Your task to perform on an android device: turn off location history Image 0: 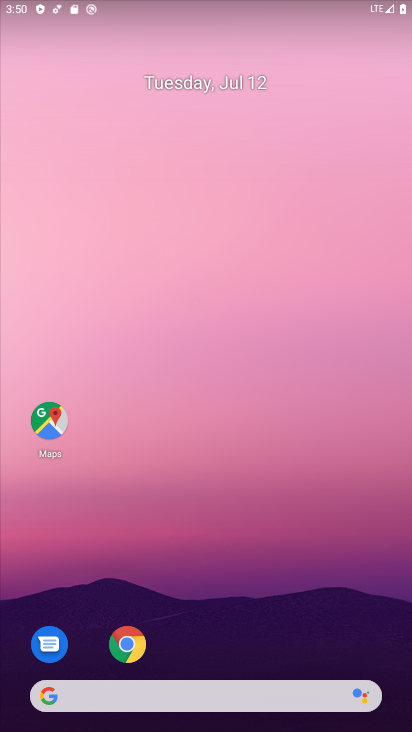
Step 0: drag from (266, 598) to (243, 2)
Your task to perform on an android device: turn off location history Image 1: 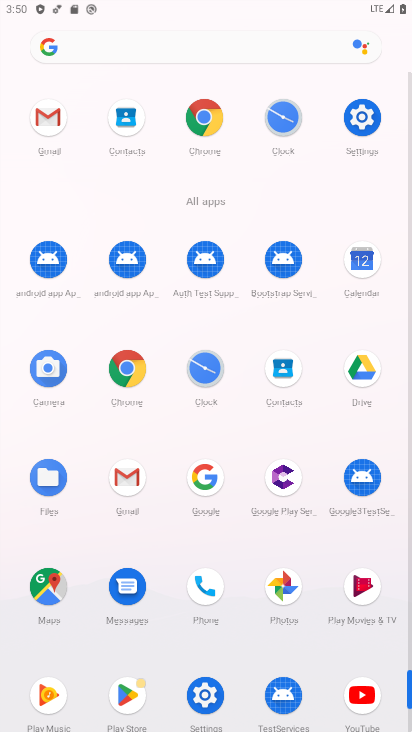
Step 1: click (214, 683)
Your task to perform on an android device: turn off location history Image 2: 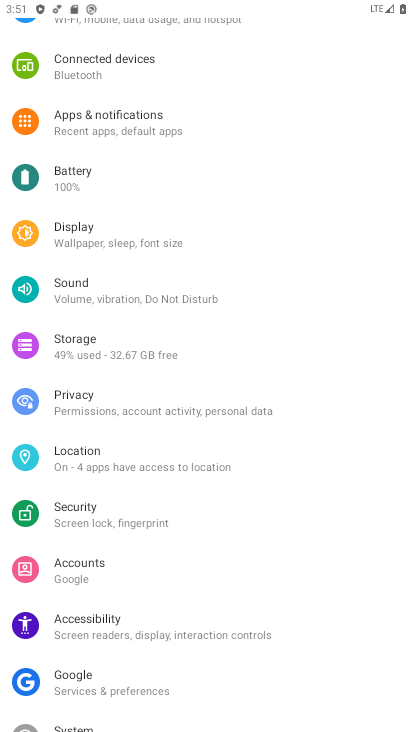
Step 2: drag from (192, 634) to (144, 249)
Your task to perform on an android device: turn off location history Image 3: 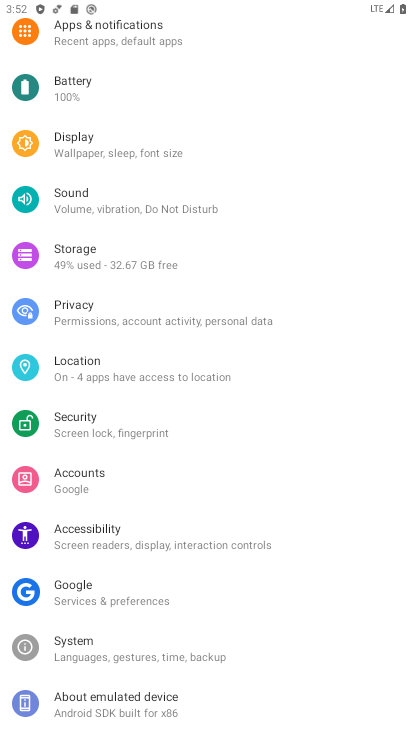
Step 3: drag from (144, 572) to (111, 225)
Your task to perform on an android device: turn off location history Image 4: 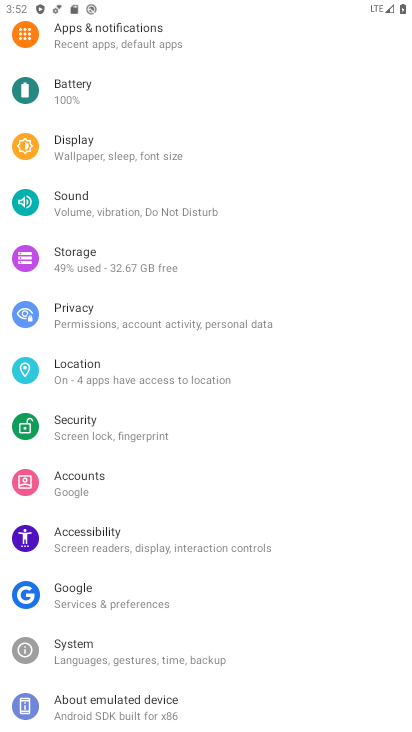
Step 4: drag from (196, 563) to (164, 238)
Your task to perform on an android device: turn off location history Image 5: 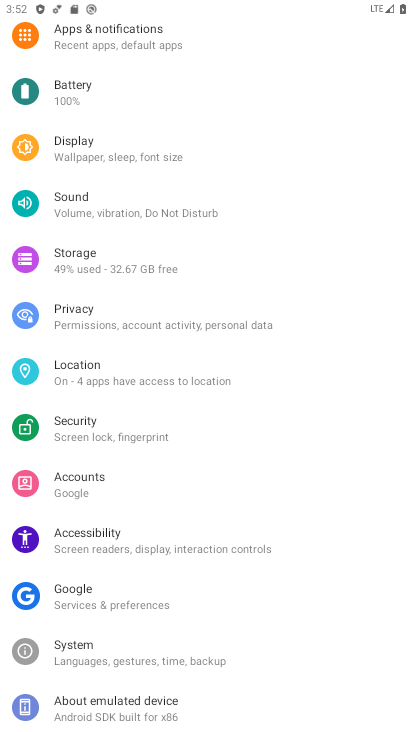
Step 5: click (95, 369)
Your task to perform on an android device: turn off location history Image 6: 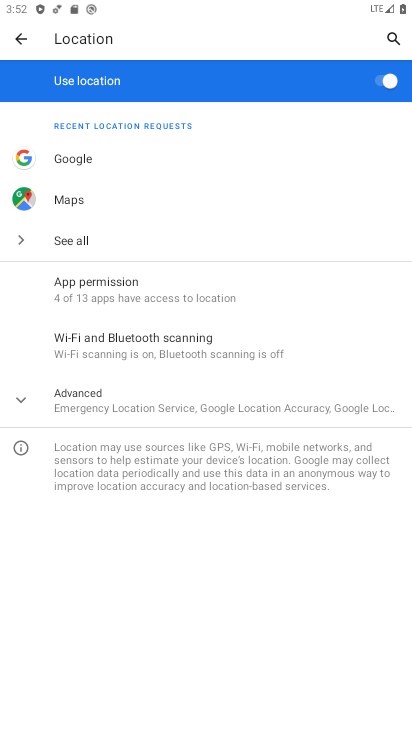
Step 6: click (64, 397)
Your task to perform on an android device: turn off location history Image 7: 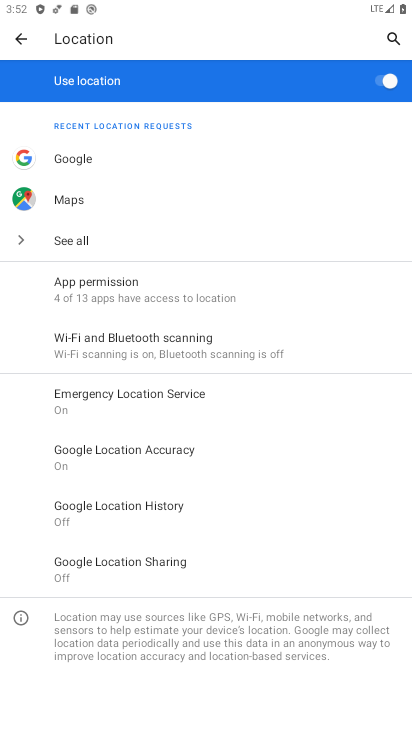
Step 7: click (188, 517)
Your task to perform on an android device: turn off location history Image 8: 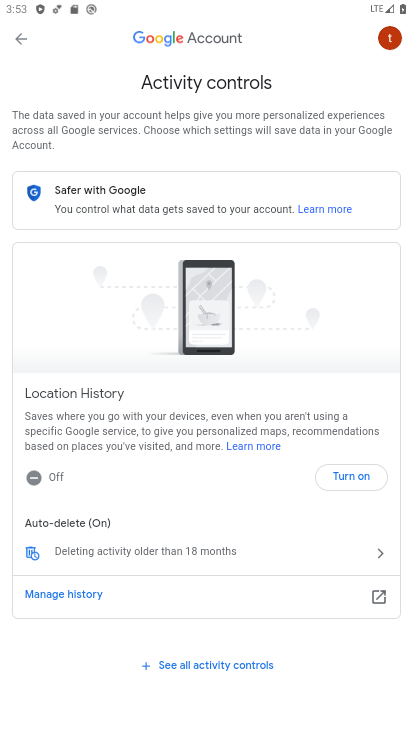
Step 8: task complete